Your task to perform on an android device: Open the calendar app, open the side menu, and click the "Day" option Image 0: 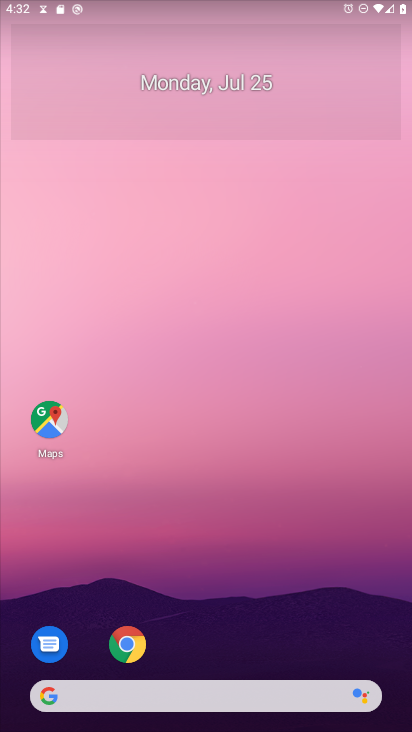
Step 0: press home button
Your task to perform on an android device: Open the calendar app, open the side menu, and click the "Day" option Image 1: 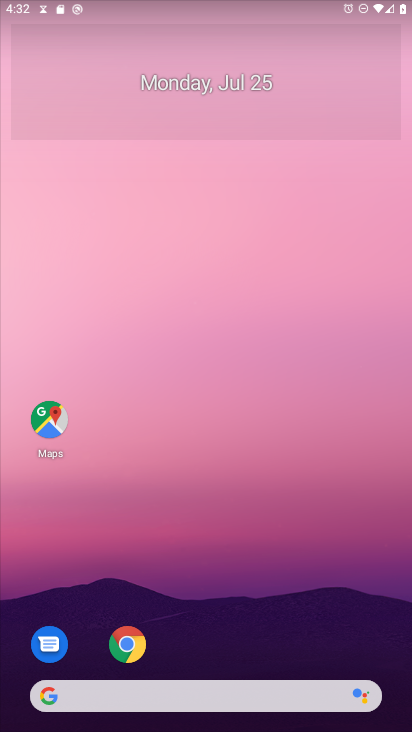
Step 1: drag from (234, 372) to (198, 118)
Your task to perform on an android device: Open the calendar app, open the side menu, and click the "Day" option Image 2: 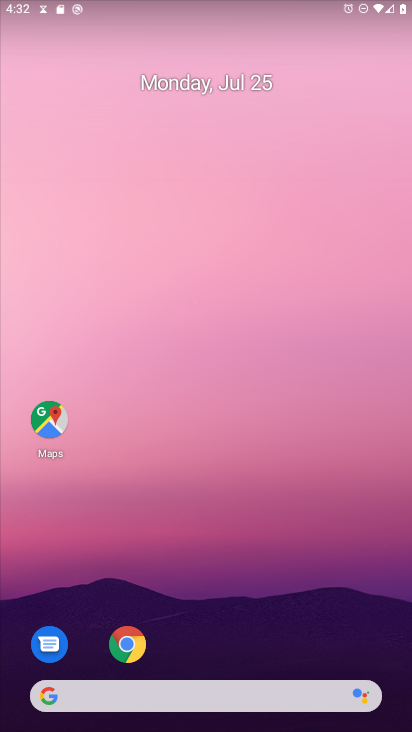
Step 2: drag from (224, 627) to (100, 63)
Your task to perform on an android device: Open the calendar app, open the side menu, and click the "Day" option Image 3: 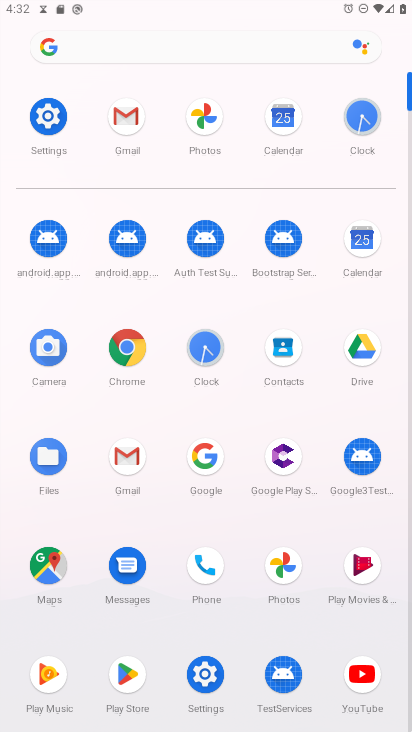
Step 3: click (284, 111)
Your task to perform on an android device: Open the calendar app, open the side menu, and click the "Day" option Image 4: 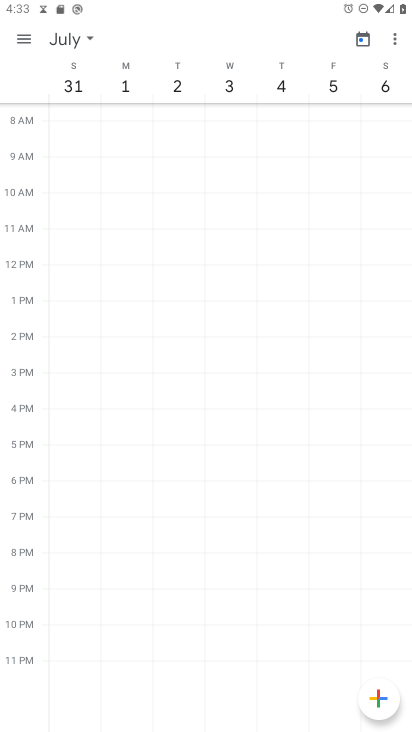
Step 4: click (394, 36)
Your task to perform on an android device: Open the calendar app, open the side menu, and click the "Day" option Image 5: 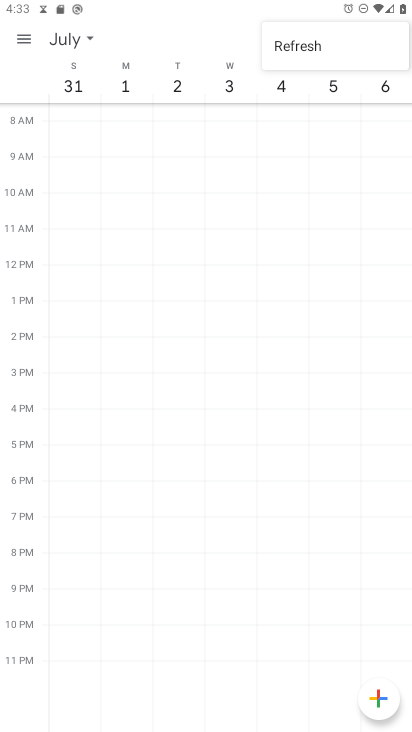
Step 5: click (29, 49)
Your task to perform on an android device: Open the calendar app, open the side menu, and click the "Day" option Image 6: 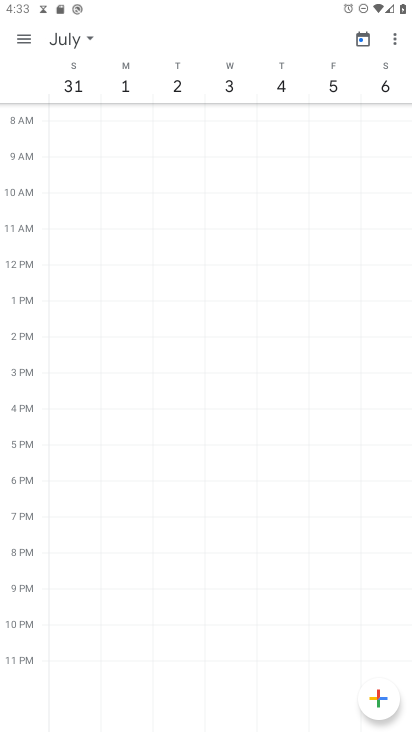
Step 6: click (20, 37)
Your task to perform on an android device: Open the calendar app, open the side menu, and click the "Day" option Image 7: 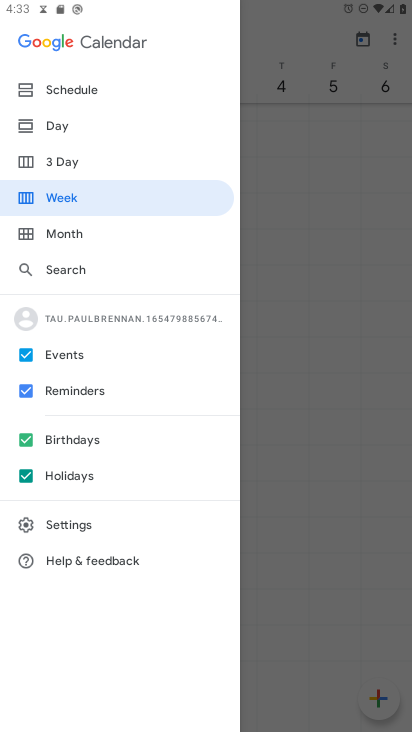
Step 7: click (49, 118)
Your task to perform on an android device: Open the calendar app, open the side menu, and click the "Day" option Image 8: 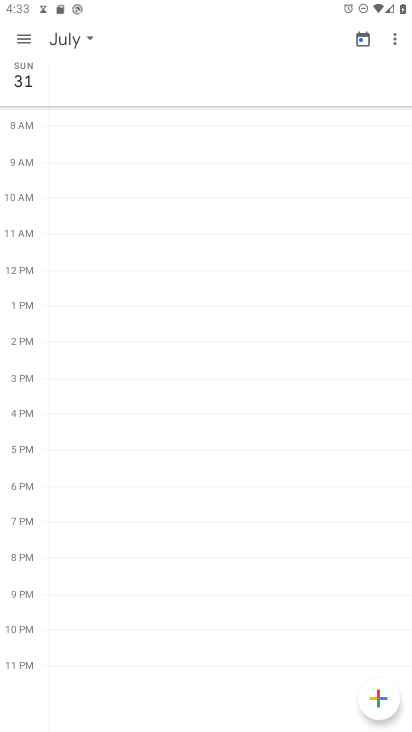
Step 8: task complete